Your task to perform on an android device: Open Maps and search for coffee Image 0: 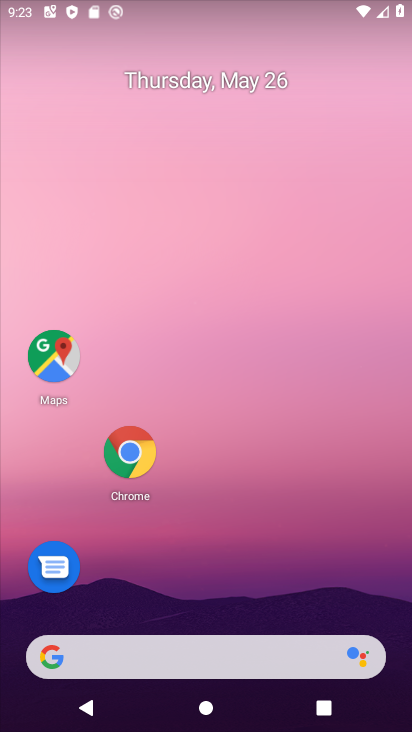
Step 0: press home button
Your task to perform on an android device: Open Maps and search for coffee Image 1: 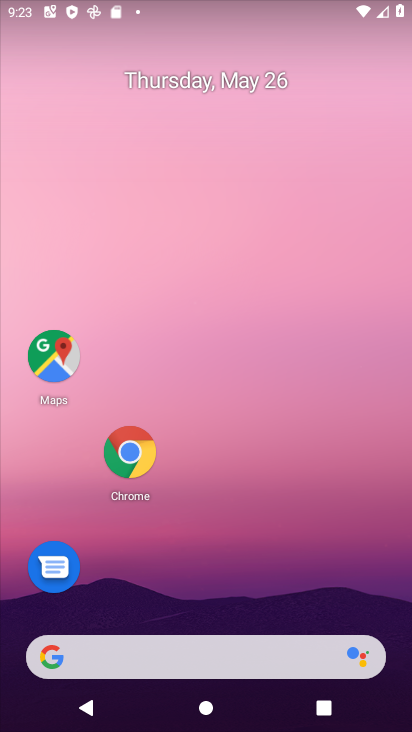
Step 1: click (43, 360)
Your task to perform on an android device: Open Maps and search for coffee Image 2: 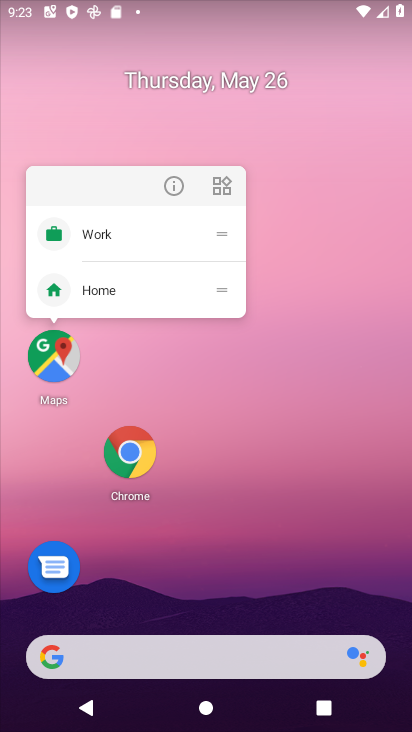
Step 2: click (57, 368)
Your task to perform on an android device: Open Maps and search for coffee Image 3: 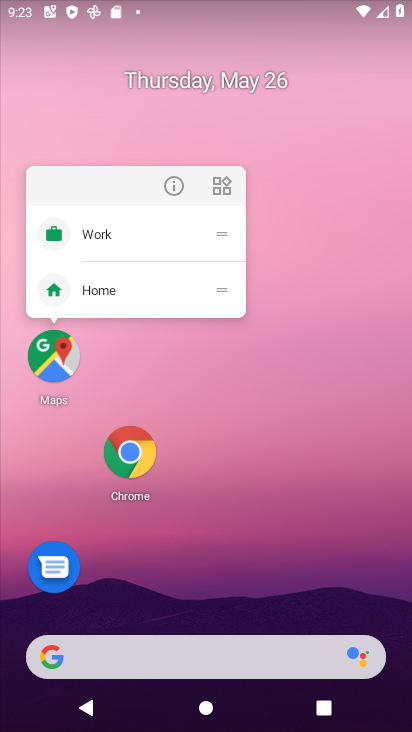
Step 3: click (48, 365)
Your task to perform on an android device: Open Maps and search for coffee Image 4: 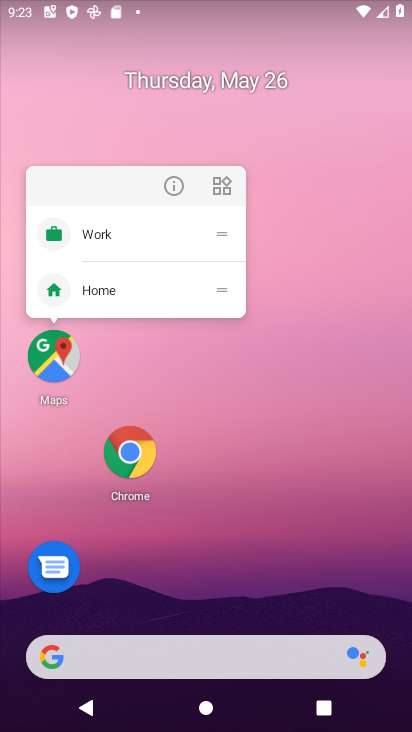
Step 4: click (58, 364)
Your task to perform on an android device: Open Maps and search for coffee Image 5: 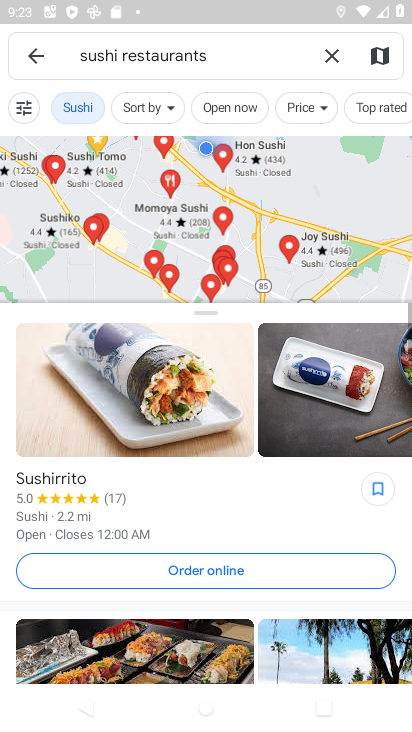
Step 5: click (331, 57)
Your task to perform on an android device: Open Maps and search for coffee Image 6: 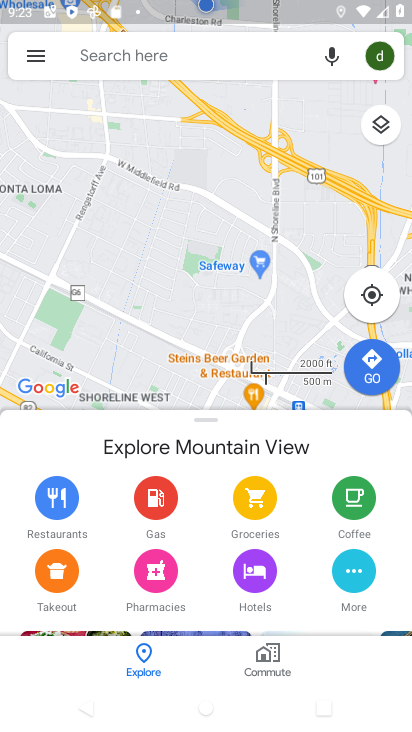
Step 6: click (120, 50)
Your task to perform on an android device: Open Maps and search for coffee Image 7: 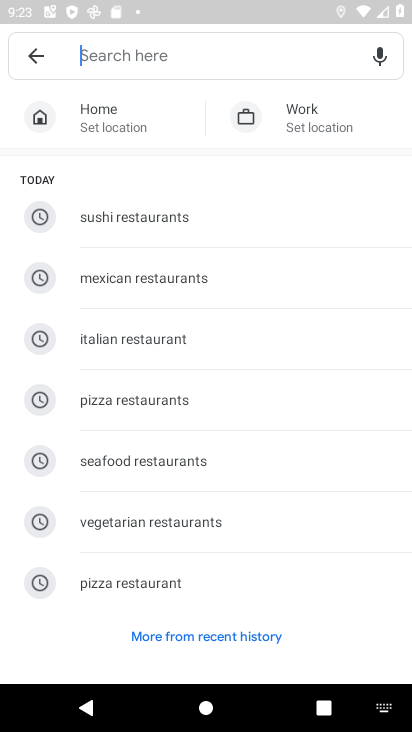
Step 7: type "coffee"
Your task to perform on an android device: Open Maps and search for coffee Image 8: 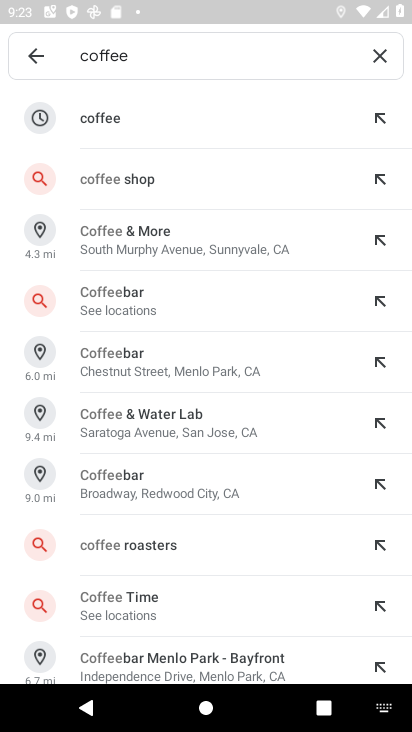
Step 8: click (126, 176)
Your task to perform on an android device: Open Maps and search for coffee Image 9: 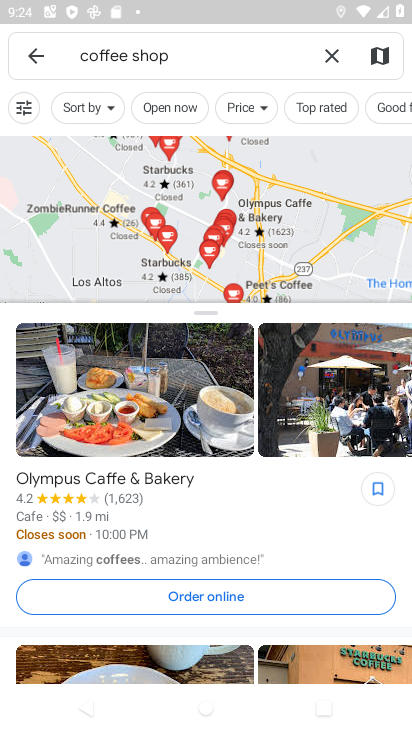
Step 9: task complete